Your task to perform on an android device: add a contact in the contacts app Image 0: 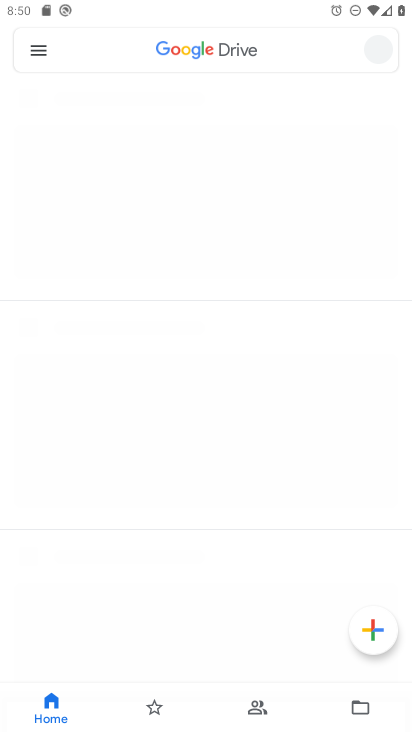
Step 0: task impossible